Your task to perform on an android device: Find a good burger place on Maps Image 0: 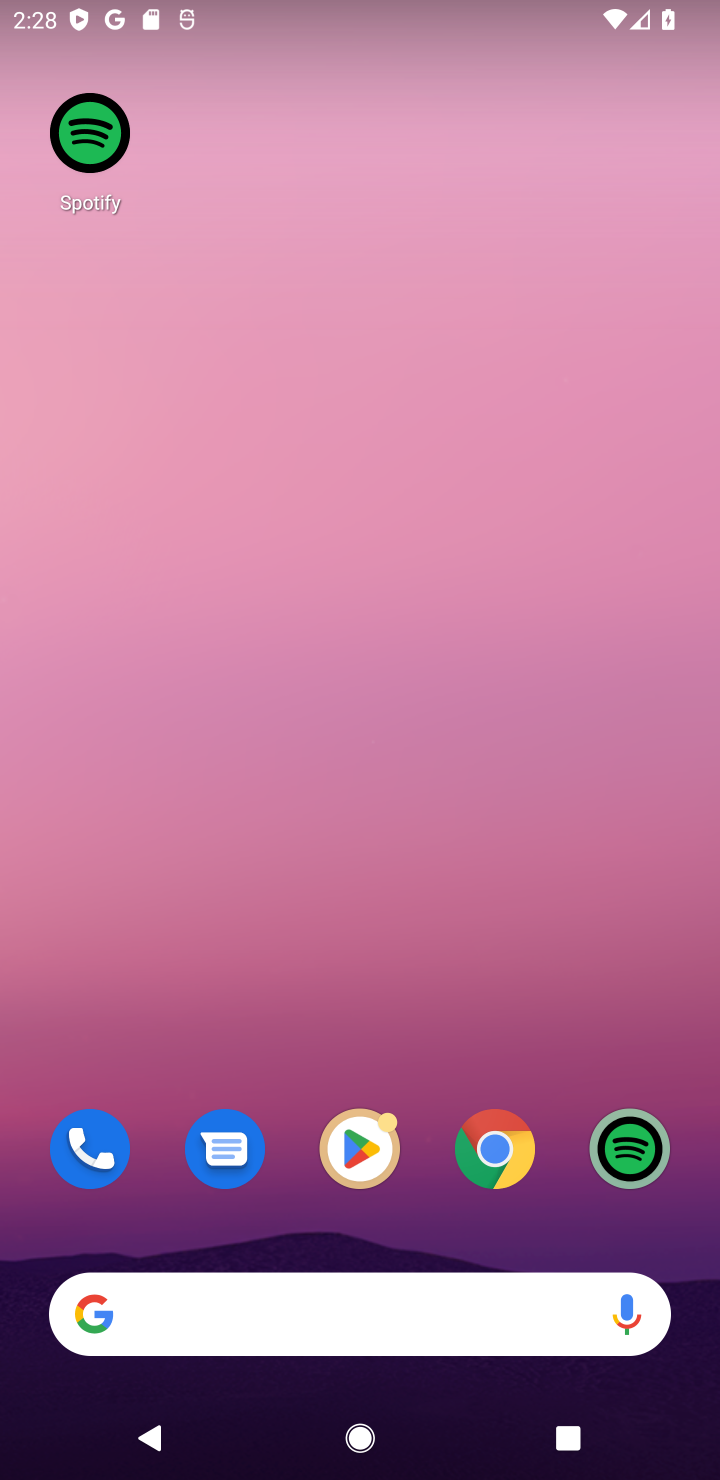
Step 0: drag from (421, 1217) to (339, 101)
Your task to perform on an android device: Find a good burger place on Maps Image 1: 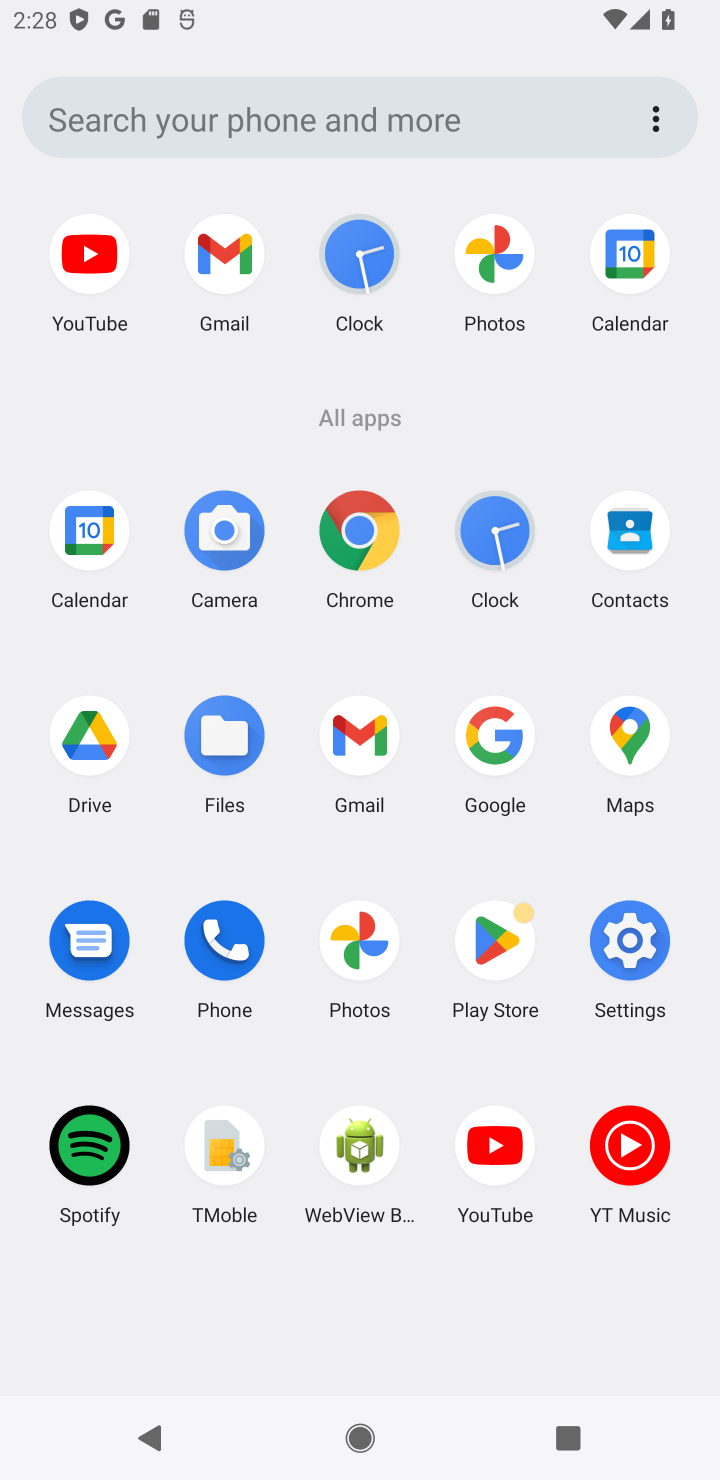
Step 1: click (610, 773)
Your task to perform on an android device: Find a good burger place on Maps Image 2: 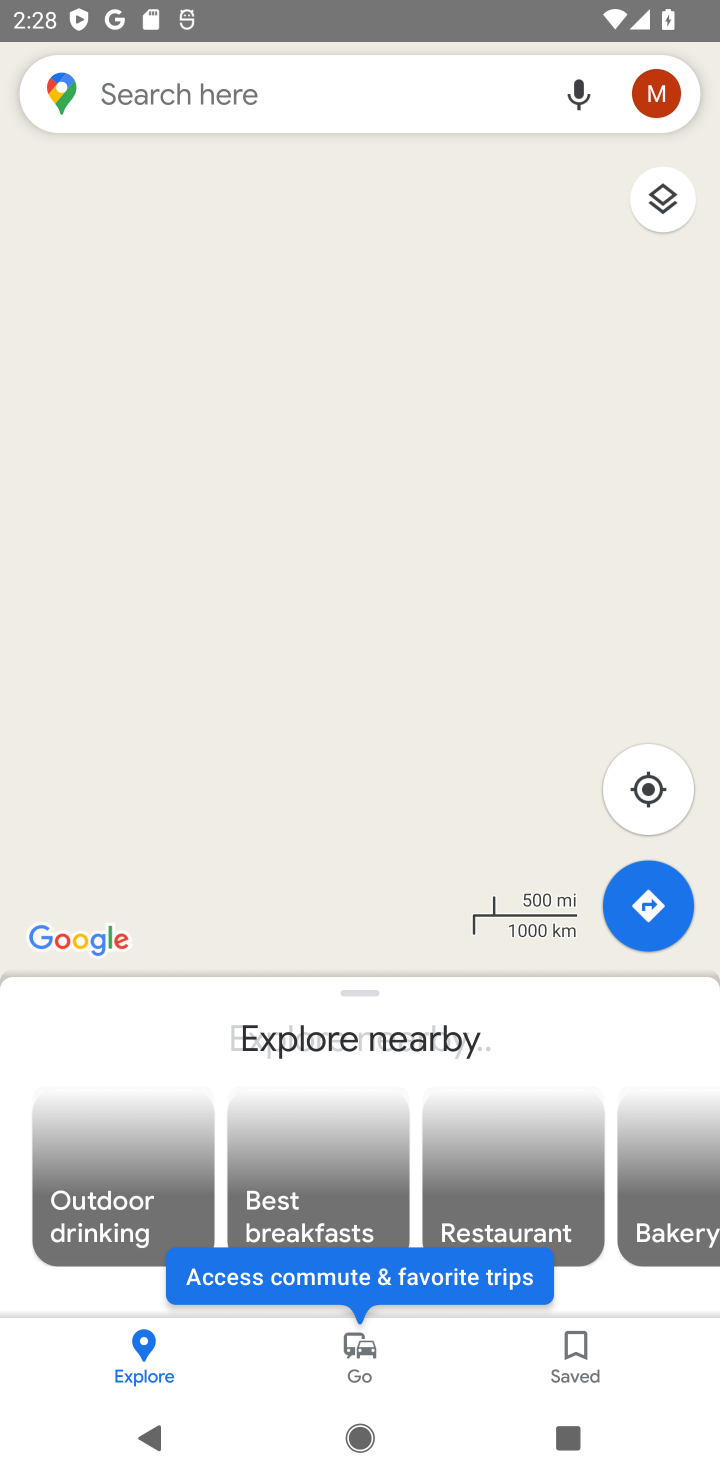
Step 2: click (416, 103)
Your task to perform on an android device: Find a good burger place on Maps Image 3: 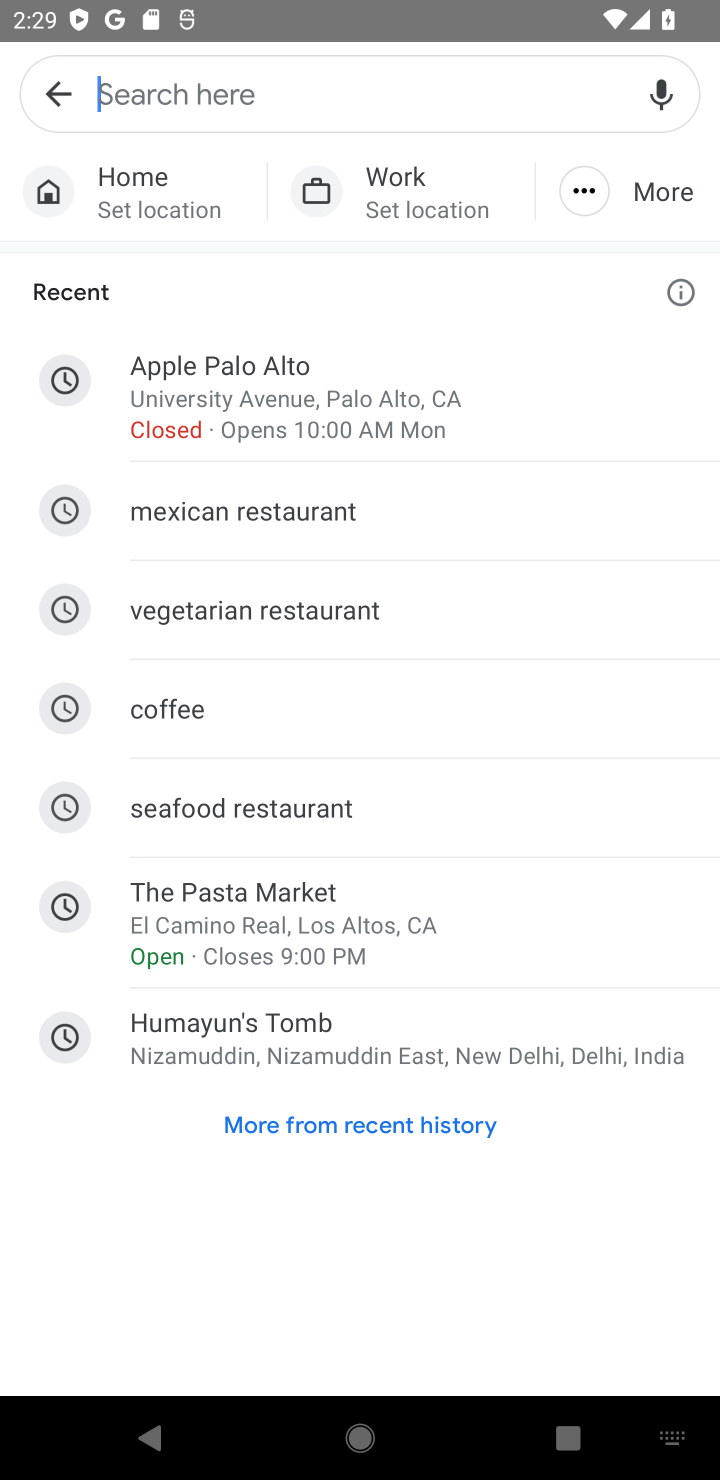
Step 3: type "good burger place"
Your task to perform on an android device: Find a good burger place on Maps Image 4: 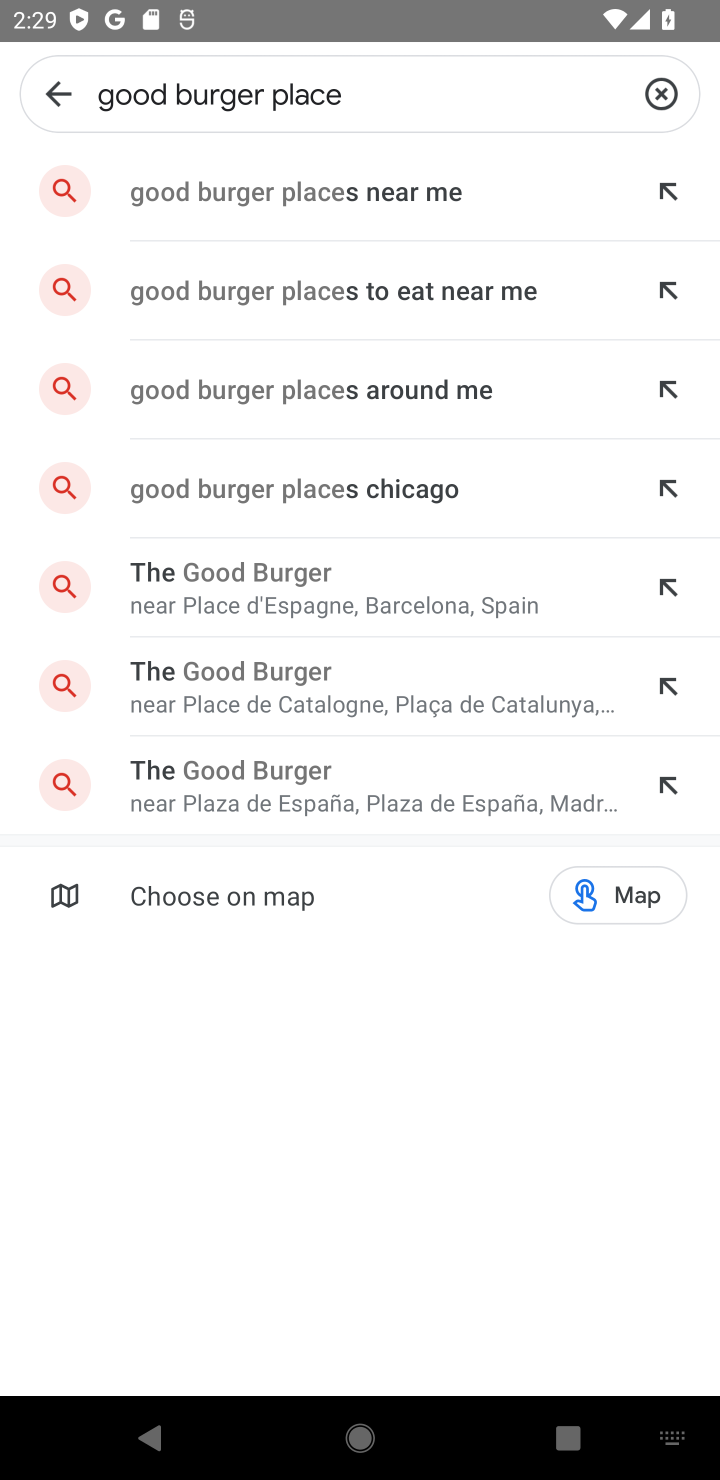
Step 4: click (349, 206)
Your task to perform on an android device: Find a good burger place on Maps Image 5: 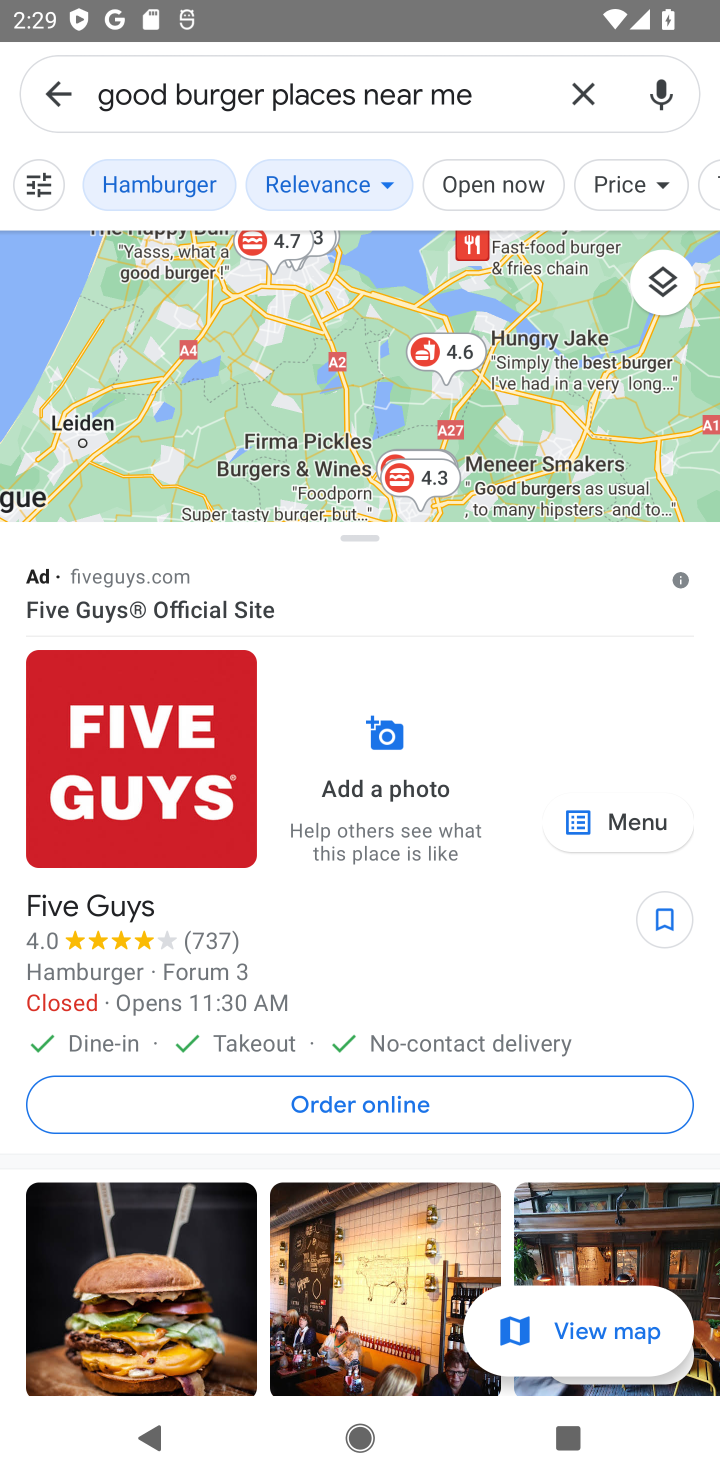
Step 5: task complete